Your task to perform on an android device: What's the weather going to be tomorrow? Image 0: 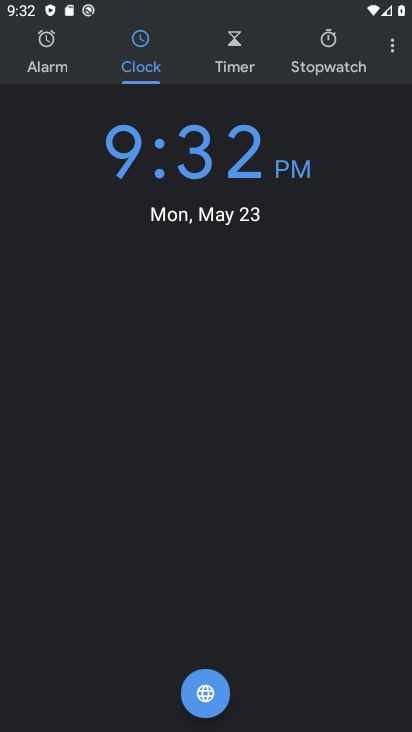
Step 0: press home button
Your task to perform on an android device: What's the weather going to be tomorrow? Image 1: 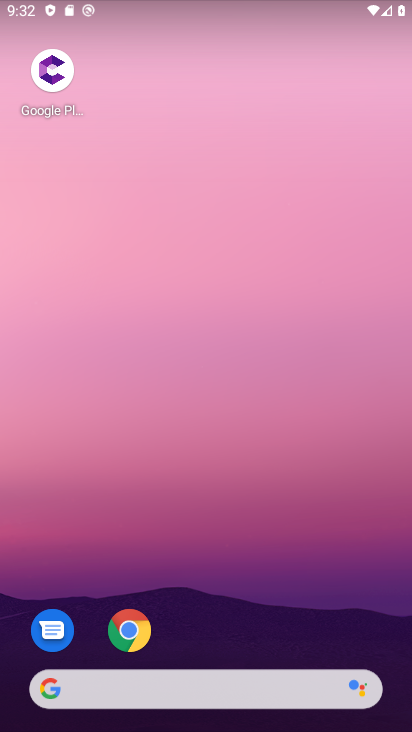
Step 1: drag from (17, 369) to (410, 423)
Your task to perform on an android device: What's the weather going to be tomorrow? Image 2: 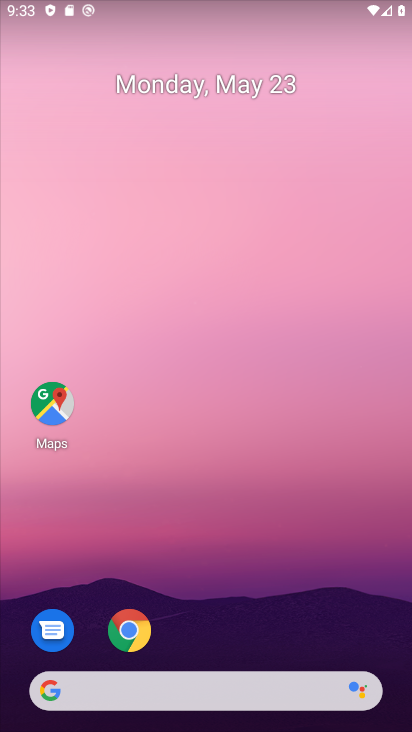
Step 2: drag from (231, 680) to (207, 132)
Your task to perform on an android device: What's the weather going to be tomorrow? Image 3: 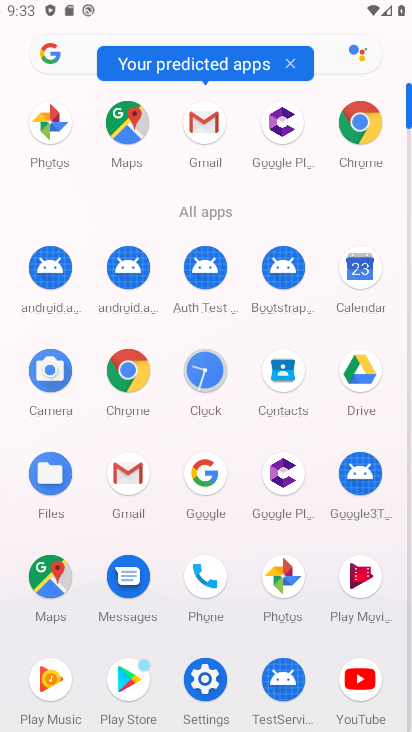
Step 3: click (204, 480)
Your task to perform on an android device: What's the weather going to be tomorrow? Image 4: 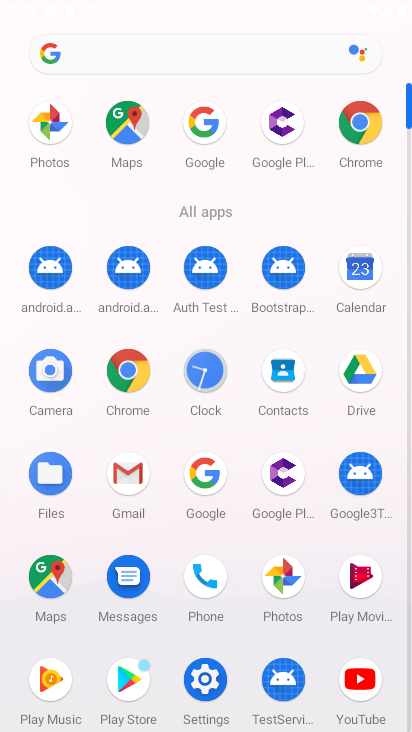
Step 4: click (203, 489)
Your task to perform on an android device: What's the weather going to be tomorrow? Image 5: 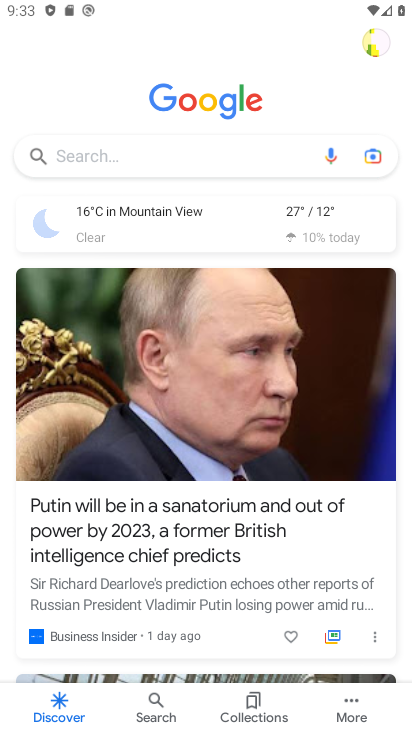
Step 5: click (43, 220)
Your task to perform on an android device: What's the weather going to be tomorrow? Image 6: 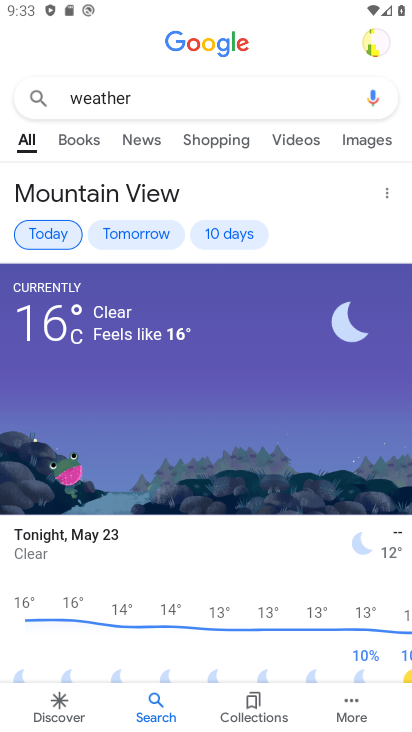
Step 6: click (116, 234)
Your task to perform on an android device: What's the weather going to be tomorrow? Image 7: 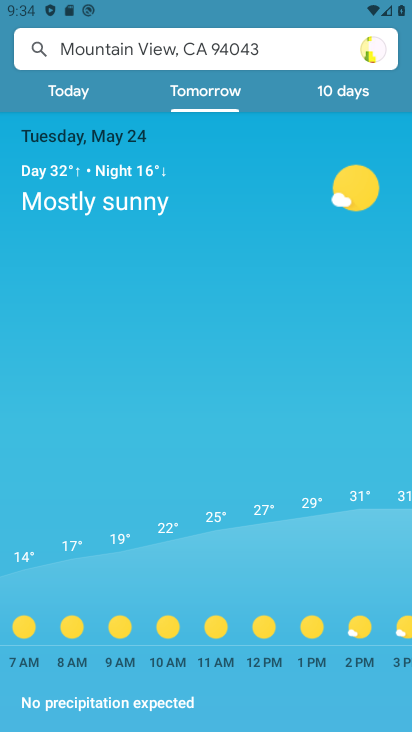
Step 7: task complete